Your task to perform on an android device: toggle data saver in the chrome app Image 0: 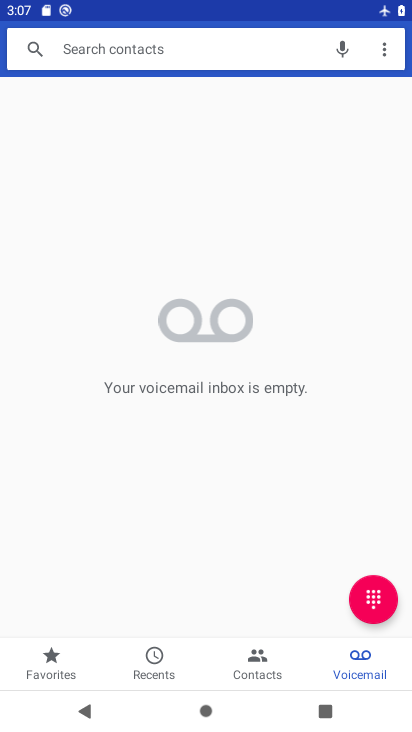
Step 0: press home button
Your task to perform on an android device: toggle data saver in the chrome app Image 1: 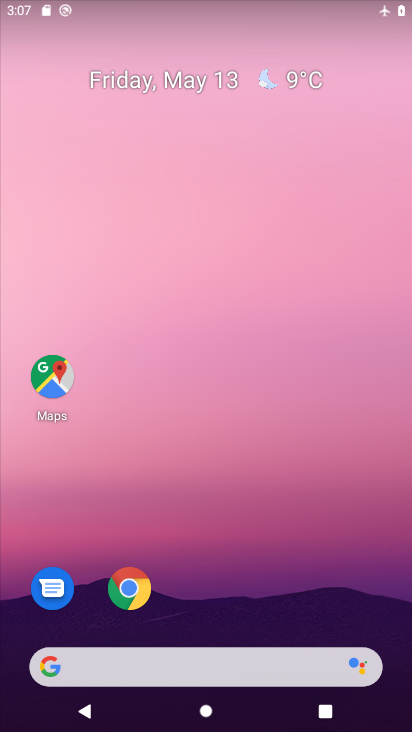
Step 1: click (131, 596)
Your task to perform on an android device: toggle data saver in the chrome app Image 2: 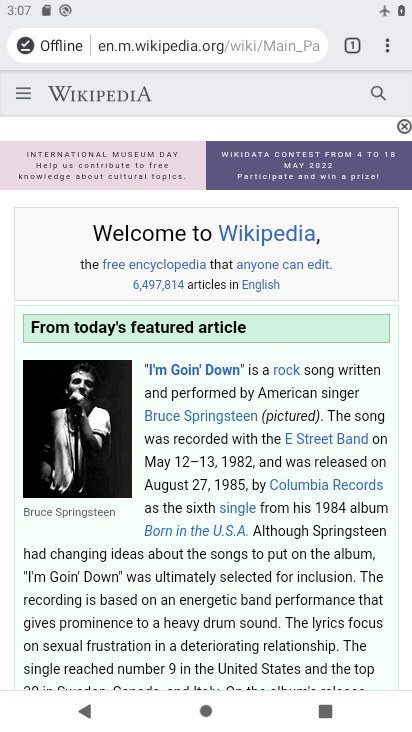
Step 2: click (387, 56)
Your task to perform on an android device: toggle data saver in the chrome app Image 3: 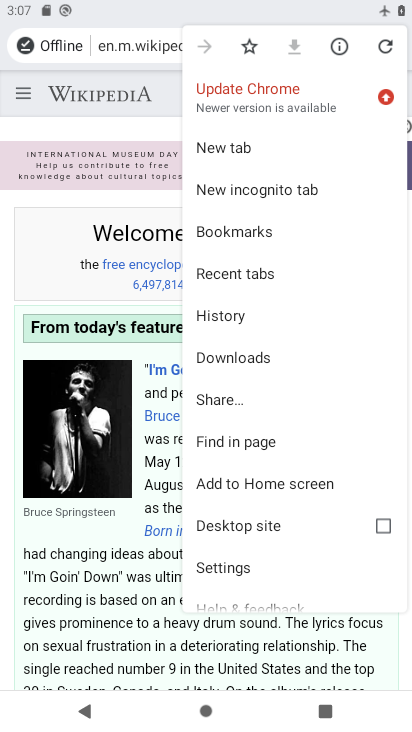
Step 3: click (278, 569)
Your task to perform on an android device: toggle data saver in the chrome app Image 4: 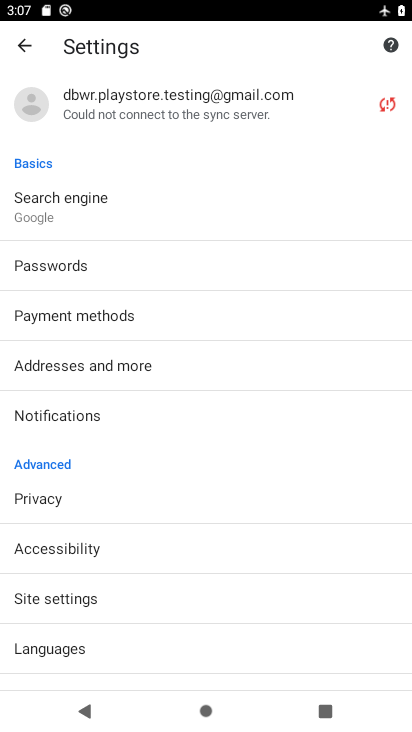
Step 4: drag from (192, 590) to (132, 307)
Your task to perform on an android device: toggle data saver in the chrome app Image 5: 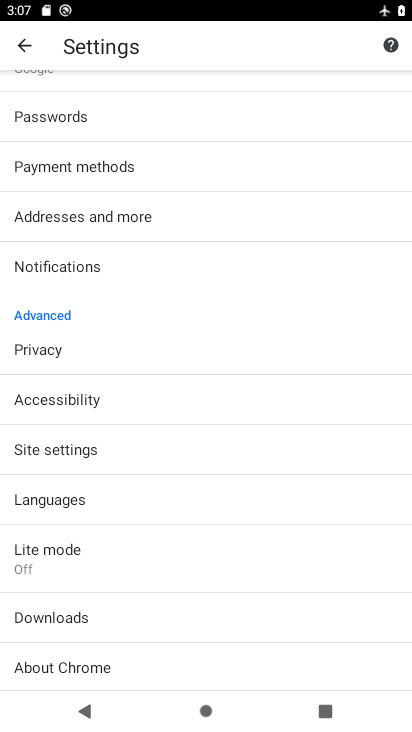
Step 5: click (142, 558)
Your task to perform on an android device: toggle data saver in the chrome app Image 6: 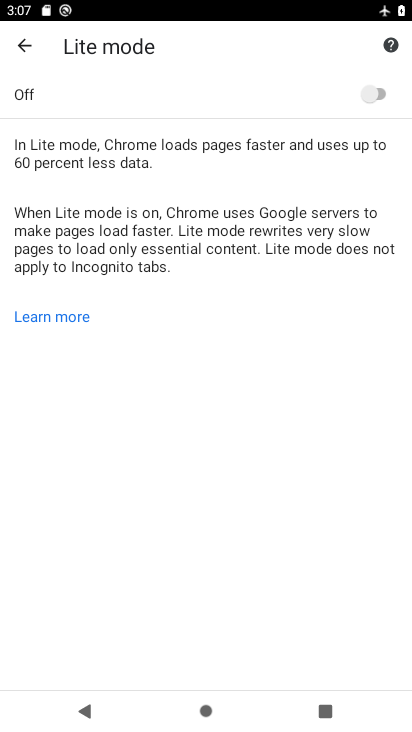
Step 6: click (366, 98)
Your task to perform on an android device: toggle data saver in the chrome app Image 7: 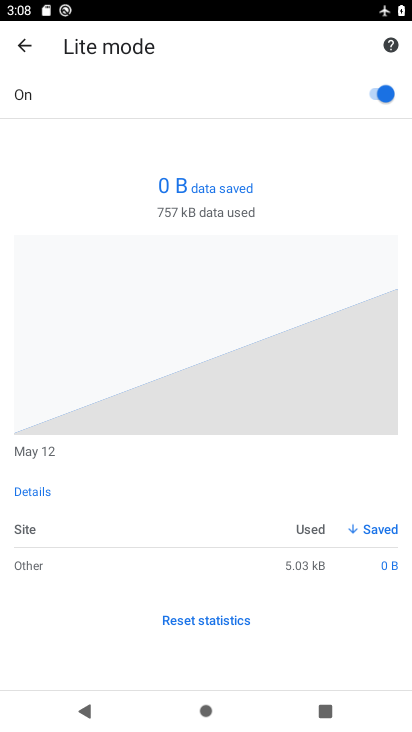
Step 7: task complete